Your task to perform on an android device: set the timer Image 0: 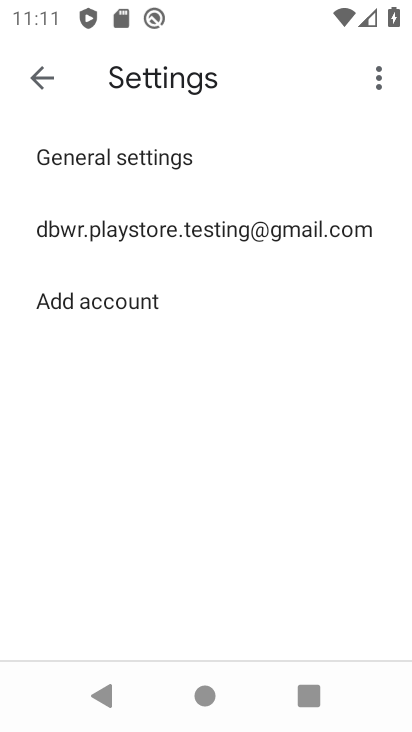
Step 0: press home button
Your task to perform on an android device: set the timer Image 1: 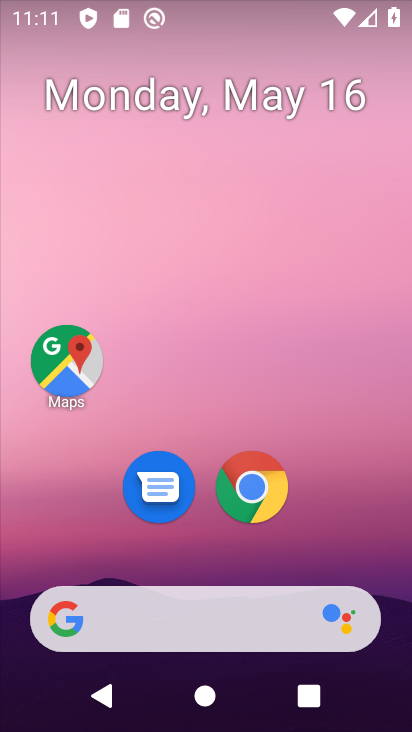
Step 1: drag from (41, 628) to (258, 240)
Your task to perform on an android device: set the timer Image 2: 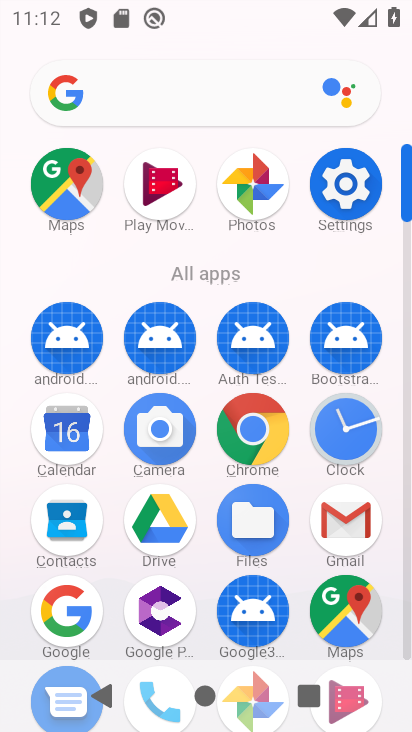
Step 2: click (334, 427)
Your task to perform on an android device: set the timer Image 3: 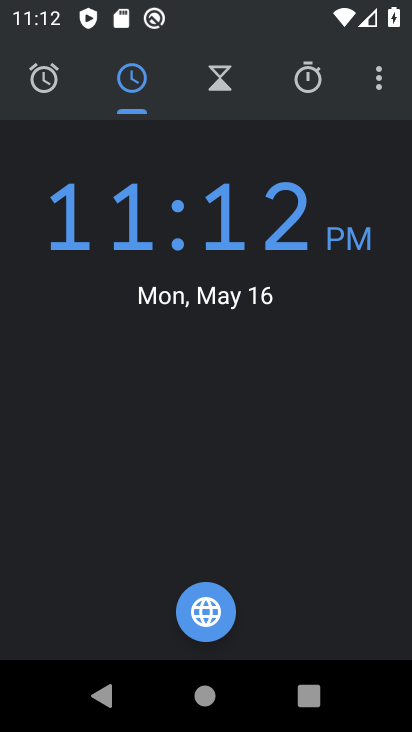
Step 3: click (224, 87)
Your task to perform on an android device: set the timer Image 4: 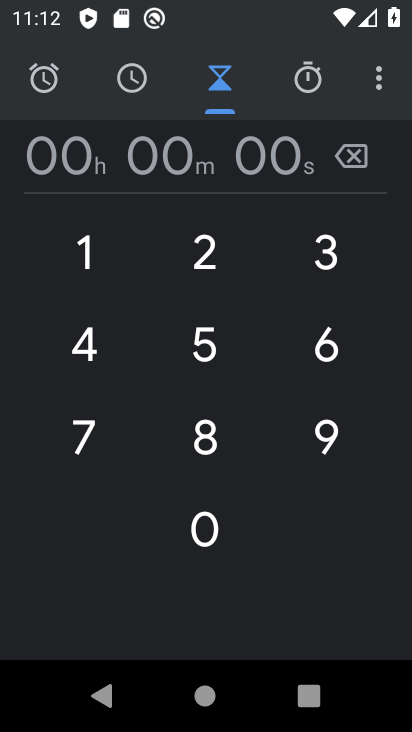
Step 4: click (193, 540)
Your task to perform on an android device: set the timer Image 5: 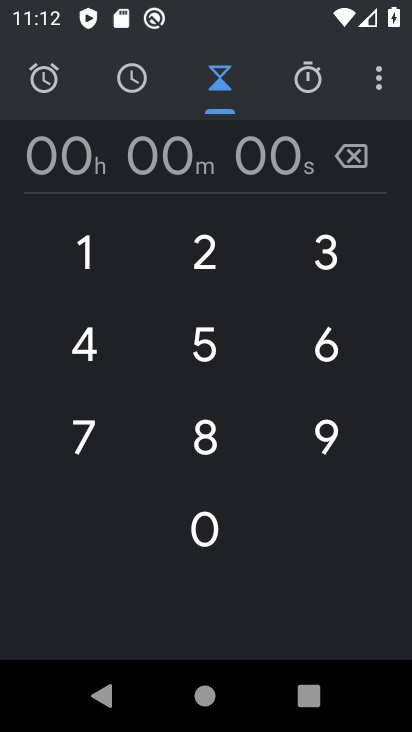
Step 5: click (83, 253)
Your task to perform on an android device: set the timer Image 6: 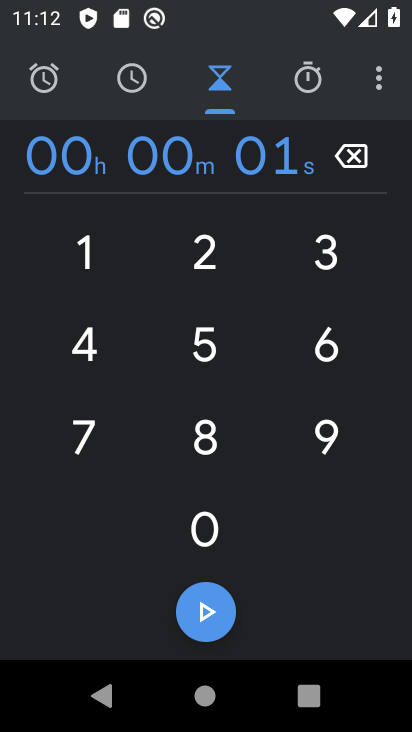
Step 6: click (204, 537)
Your task to perform on an android device: set the timer Image 7: 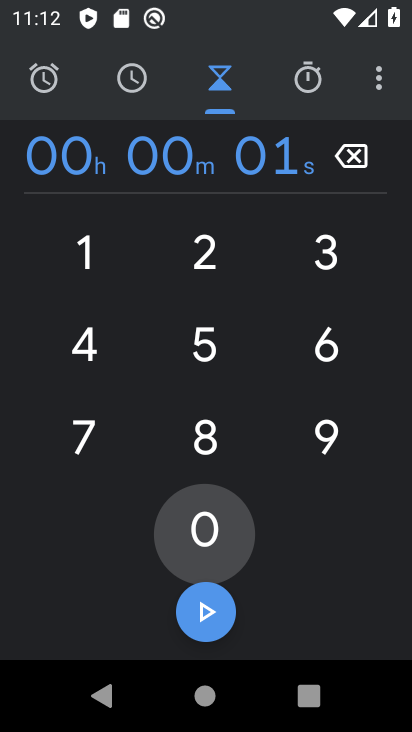
Step 7: click (204, 537)
Your task to perform on an android device: set the timer Image 8: 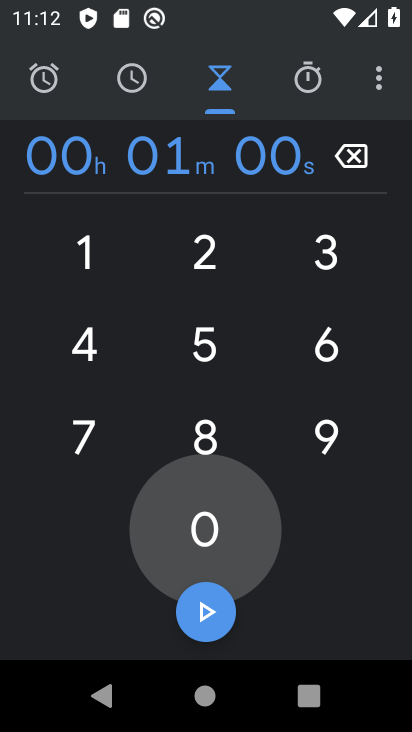
Step 8: click (203, 536)
Your task to perform on an android device: set the timer Image 9: 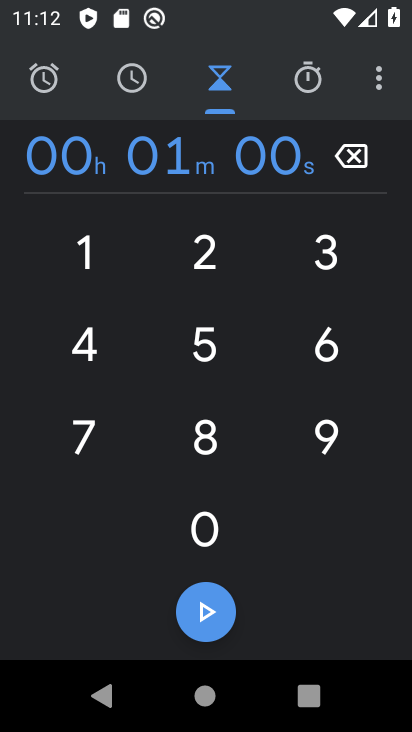
Step 9: click (203, 536)
Your task to perform on an android device: set the timer Image 10: 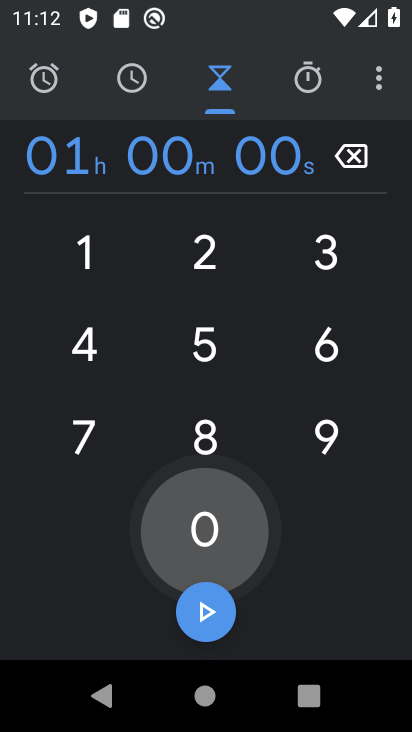
Step 10: click (203, 535)
Your task to perform on an android device: set the timer Image 11: 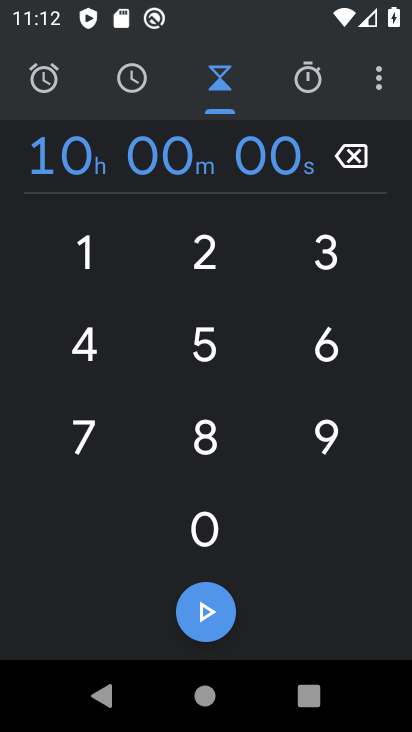
Step 11: task complete